Your task to perform on an android device: Open my contact list Image 0: 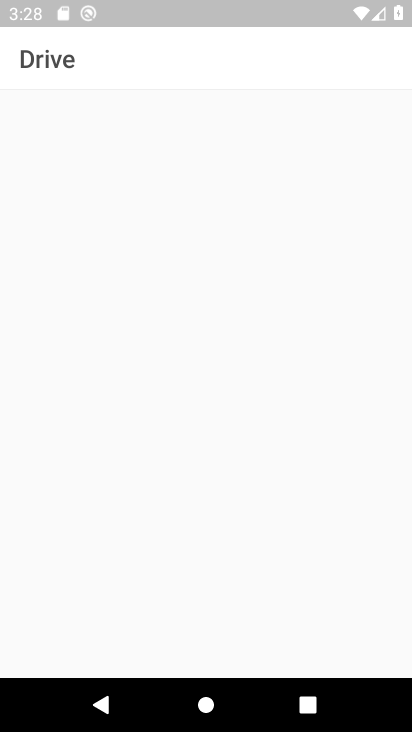
Step 0: press home button
Your task to perform on an android device: Open my contact list Image 1: 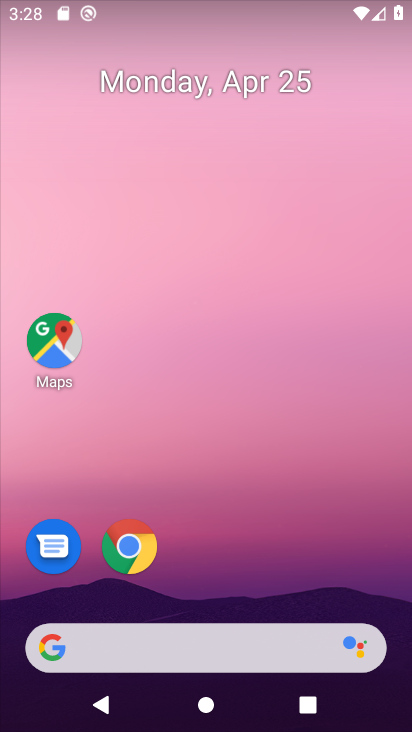
Step 1: drag from (239, 586) to (351, 10)
Your task to perform on an android device: Open my contact list Image 2: 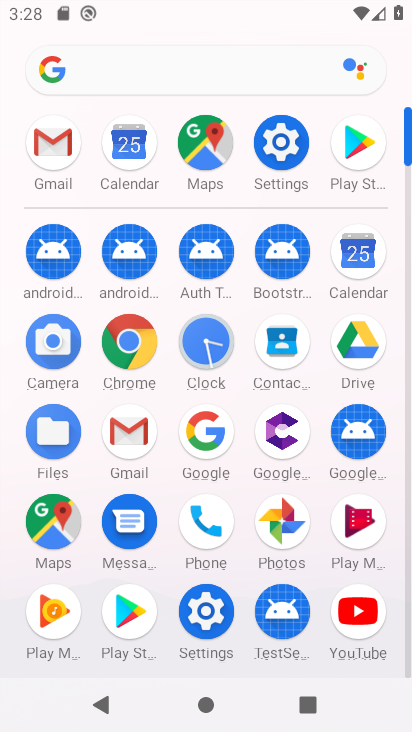
Step 2: click (286, 352)
Your task to perform on an android device: Open my contact list Image 3: 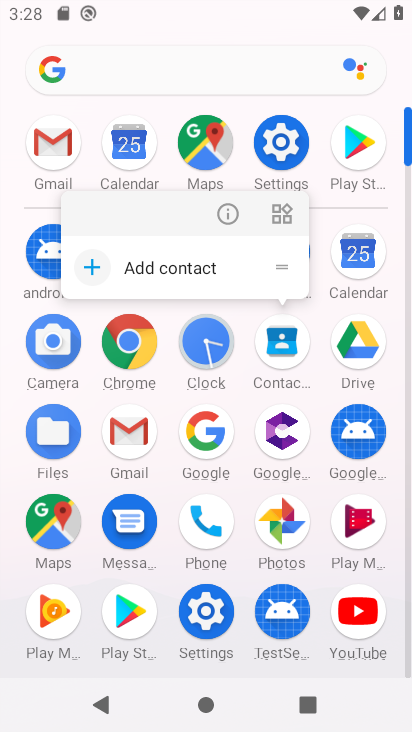
Step 3: click (287, 352)
Your task to perform on an android device: Open my contact list Image 4: 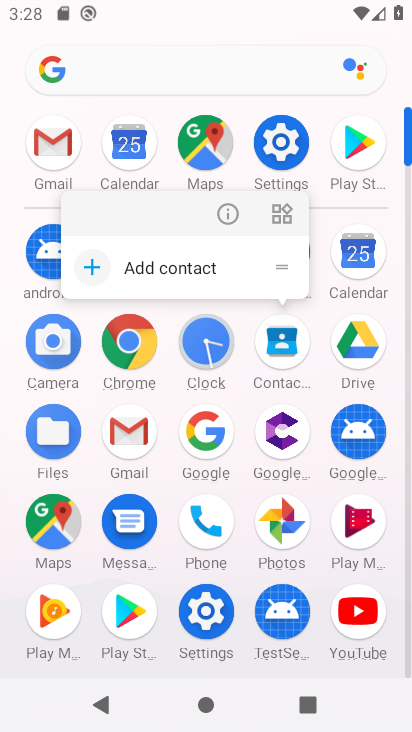
Step 4: click (287, 352)
Your task to perform on an android device: Open my contact list Image 5: 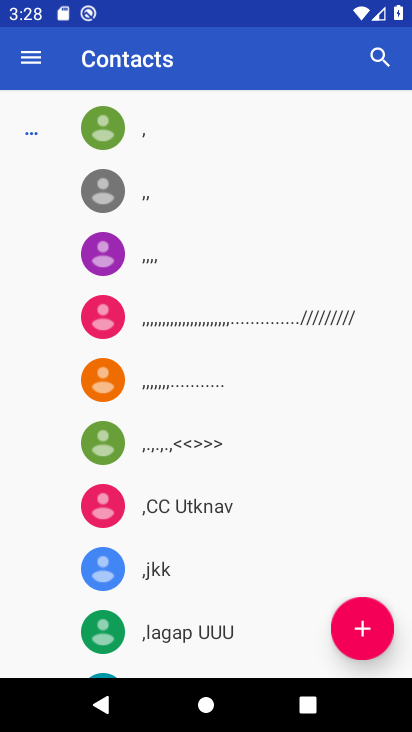
Step 5: task complete